Your task to perform on an android device: What's on my calendar today? Image 0: 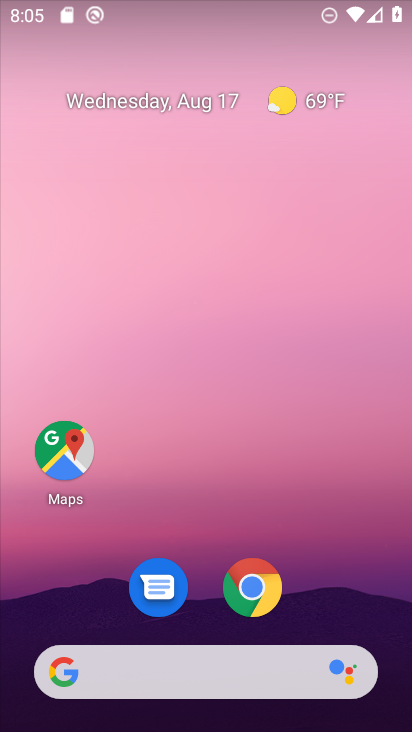
Step 0: drag from (11, 688) to (273, 0)
Your task to perform on an android device: What's on my calendar today? Image 1: 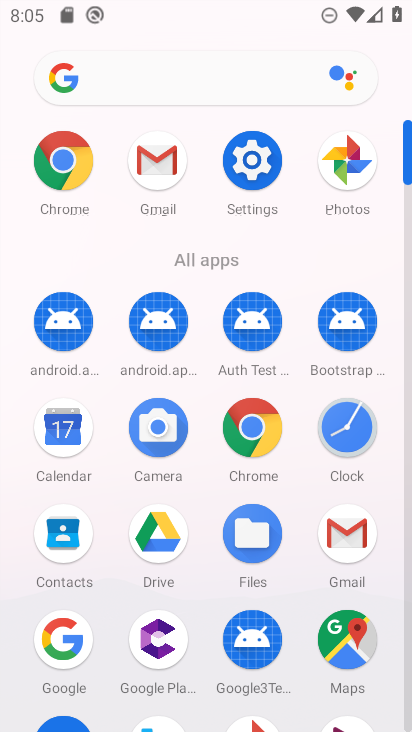
Step 1: click (65, 432)
Your task to perform on an android device: What's on my calendar today? Image 2: 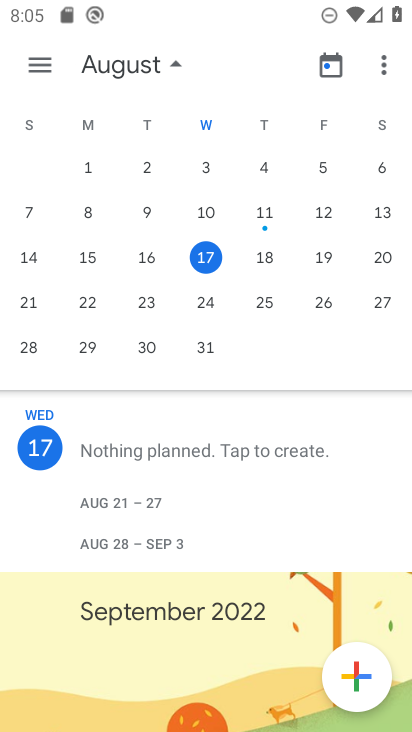
Step 2: task complete